Your task to perform on an android device: toggle priority inbox in the gmail app Image 0: 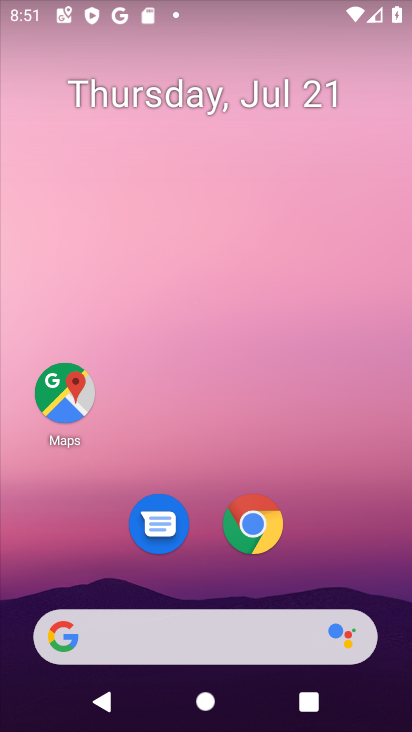
Step 0: drag from (196, 635) to (282, 151)
Your task to perform on an android device: toggle priority inbox in the gmail app Image 1: 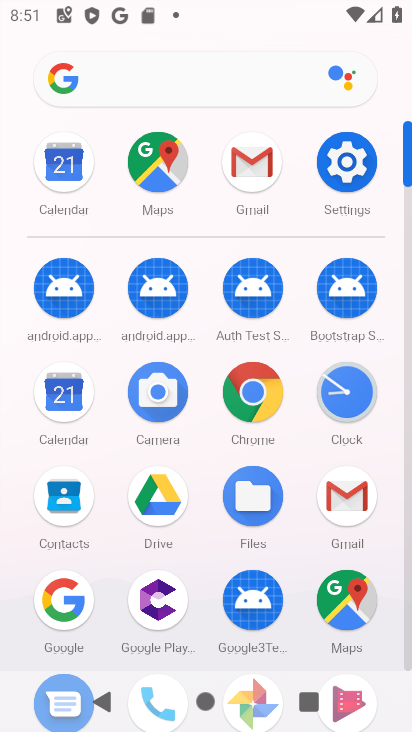
Step 1: click (252, 164)
Your task to perform on an android device: toggle priority inbox in the gmail app Image 2: 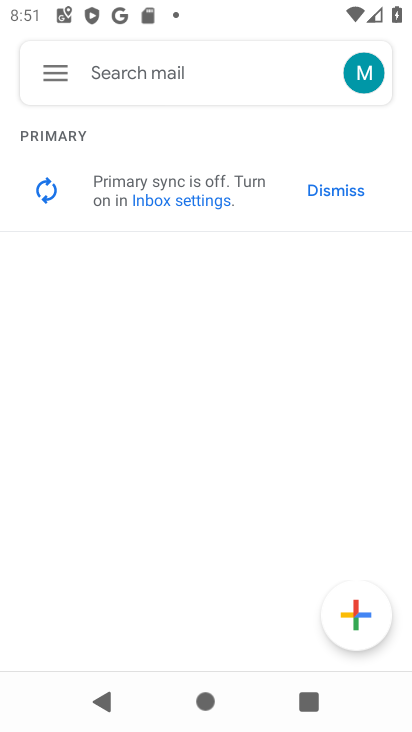
Step 2: click (60, 74)
Your task to perform on an android device: toggle priority inbox in the gmail app Image 3: 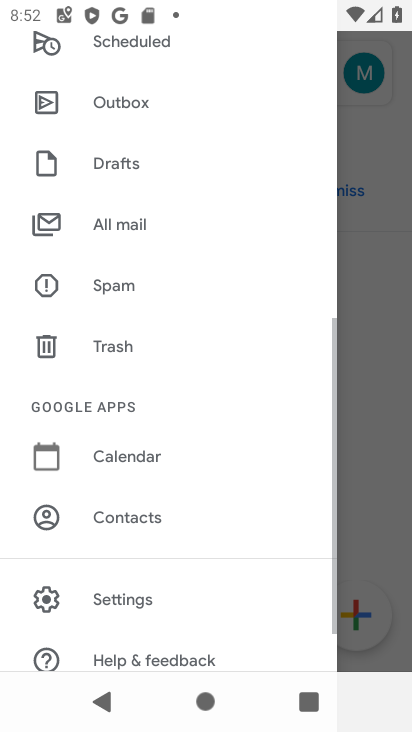
Step 3: click (132, 603)
Your task to perform on an android device: toggle priority inbox in the gmail app Image 4: 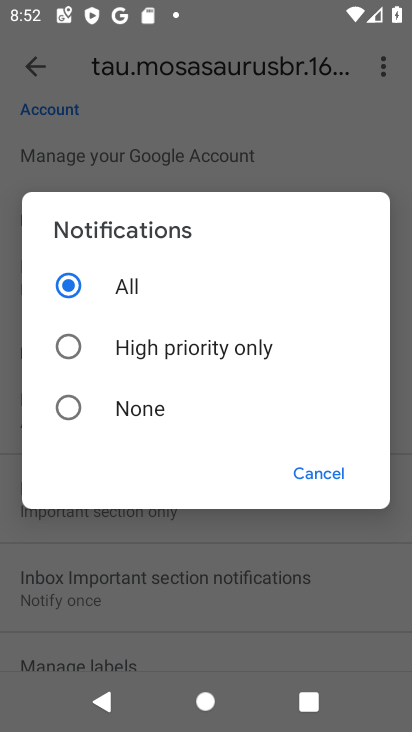
Step 4: click (319, 476)
Your task to perform on an android device: toggle priority inbox in the gmail app Image 5: 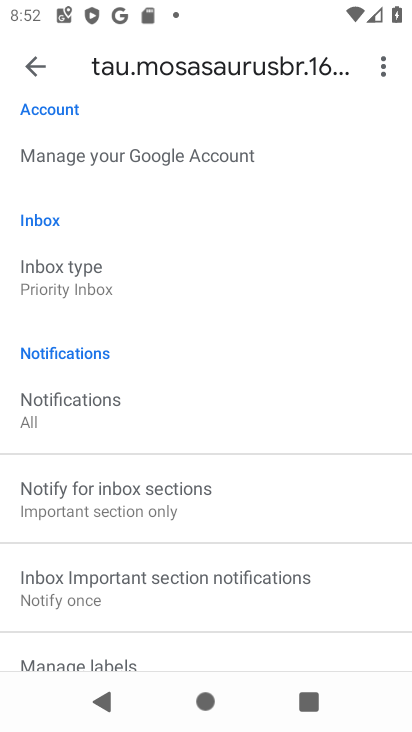
Step 5: click (40, 274)
Your task to perform on an android device: toggle priority inbox in the gmail app Image 6: 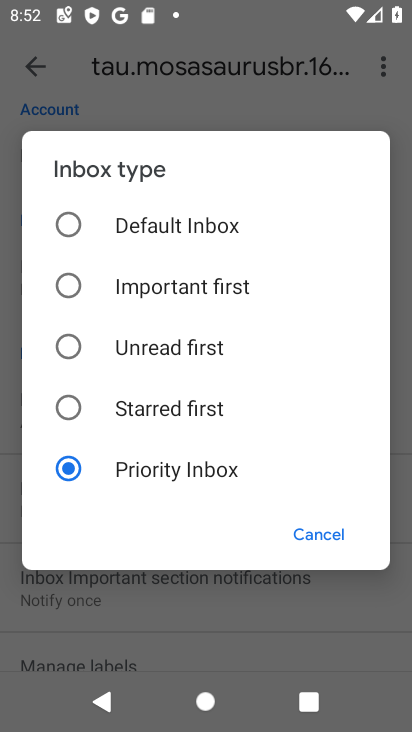
Step 6: click (65, 227)
Your task to perform on an android device: toggle priority inbox in the gmail app Image 7: 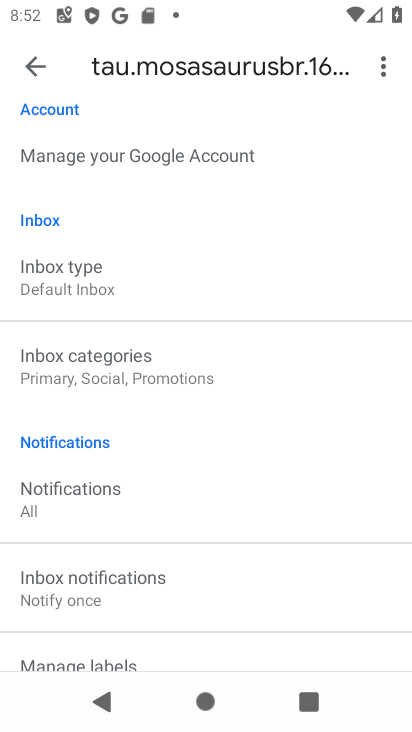
Step 7: task complete